Your task to perform on an android device: Go to Google Image 0: 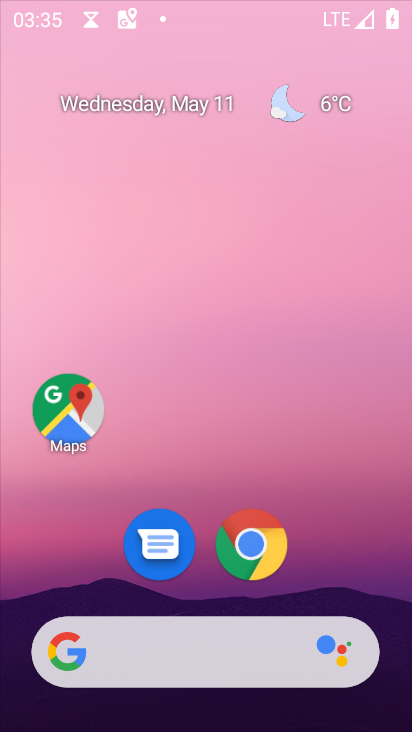
Step 0: drag from (330, 592) to (309, 34)
Your task to perform on an android device: Go to Google Image 1: 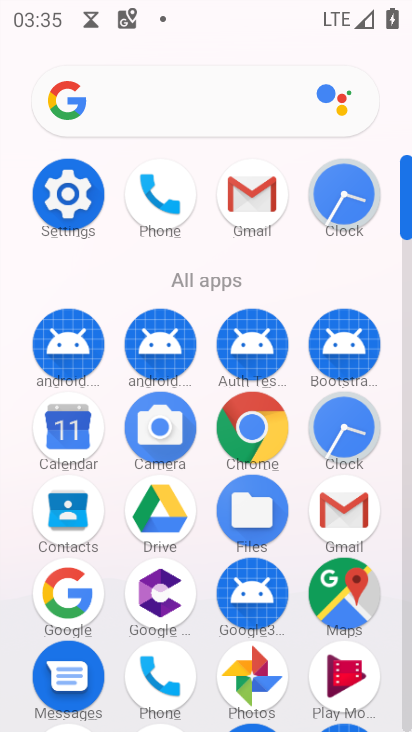
Step 1: click (78, 583)
Your task to perform on an android device: Go to Google Image 2: 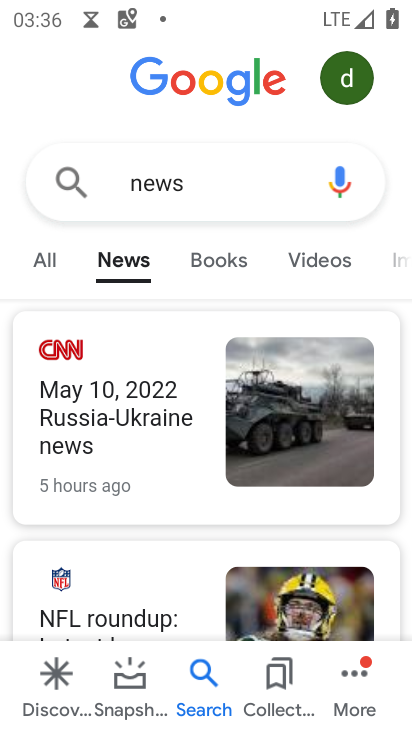
Step 2: task complete